Your task to perform on an android device: all mails in gmail Image 0: 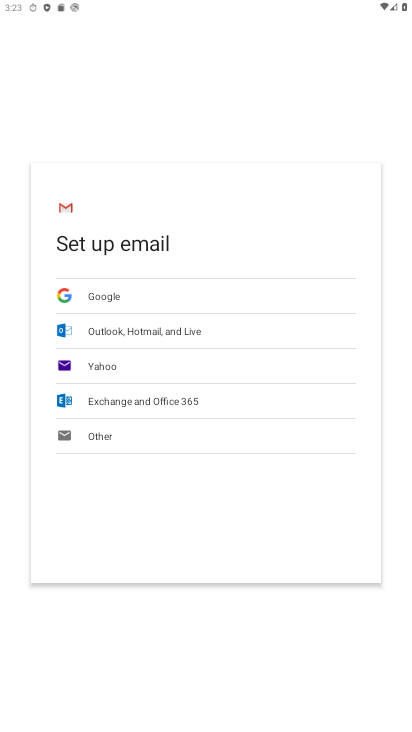
Step 0: press home button
Your task to perform on an android device: all mails in gmail Image 1: 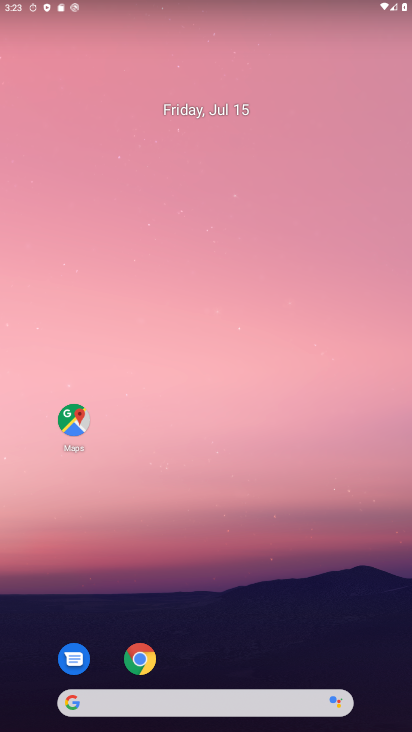
Step 1: drag from (286, 627) to (312, 20)
Your task to perform on an android device: all mails in gmail Image 2: 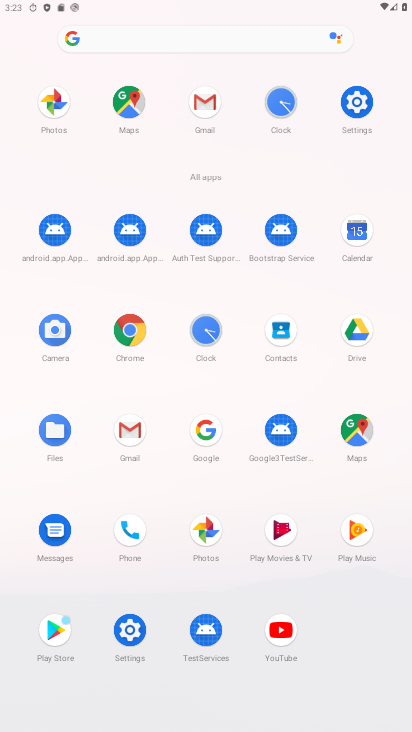
Step 2: click (204, 107)
Your task to perform on an android device: all mails in gmail Image 3: 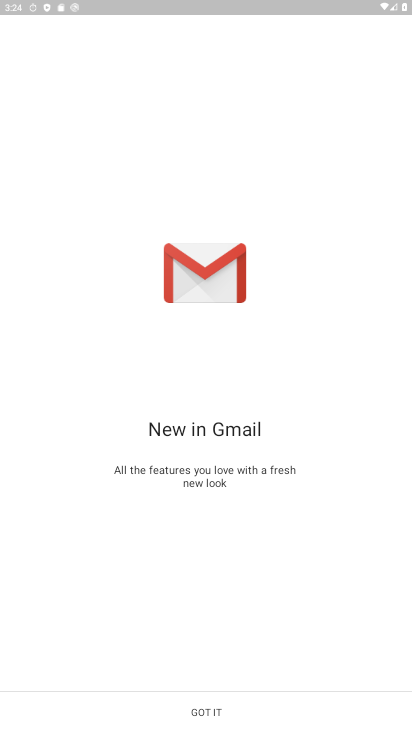
Step 3: click (234, 698)
Your task to perform on an android device: all mails in gmail Image 4: 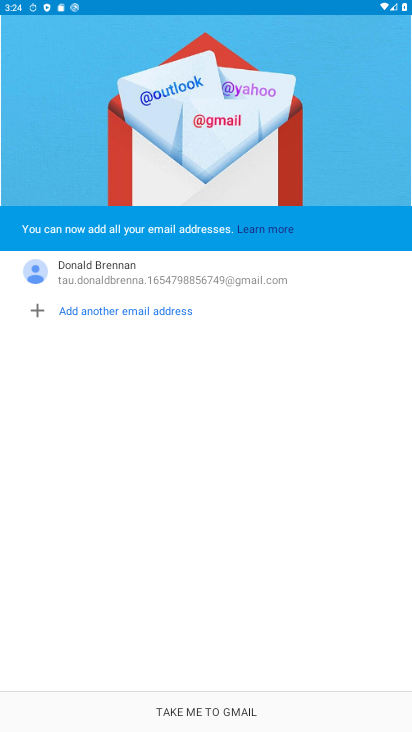
Step 4: click (214, 713)
Your task to perform on an android device: all mails in gmail Image 5: 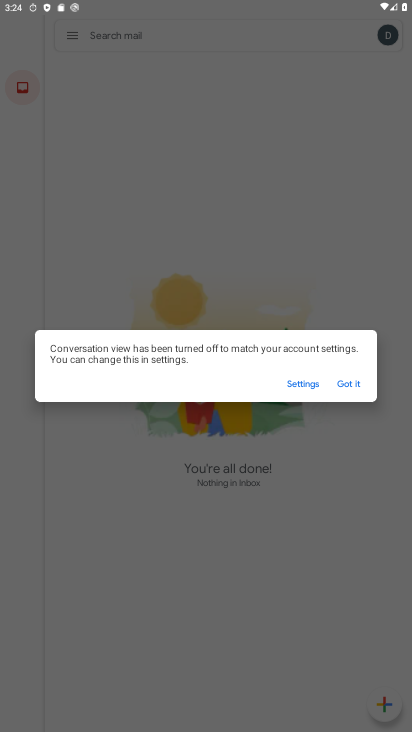
Step 5: click (345, 383)
Your task to perform on an android device: all mails in gmail Image 6: 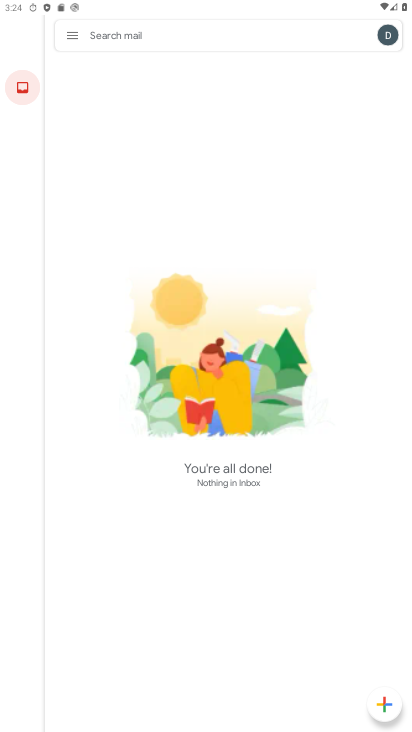
Step 6: click (69, 43)
Your task to perform on an android device: all mails in gmail Image 7: 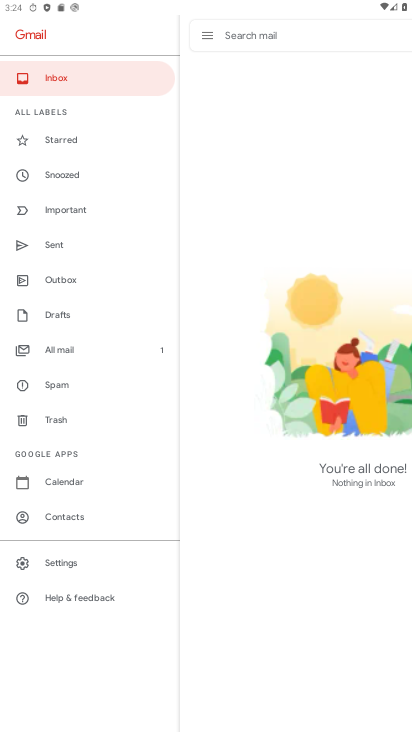
Step 7: click (63, 347)
Your task to perform on an android device: all mails in gmail Image 8: 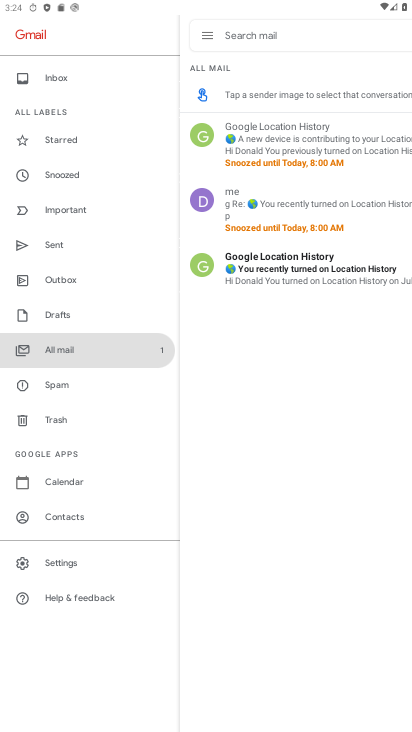
Step 8: task complete